Your task to perform on an android device: When is my next appointment? Image 0: 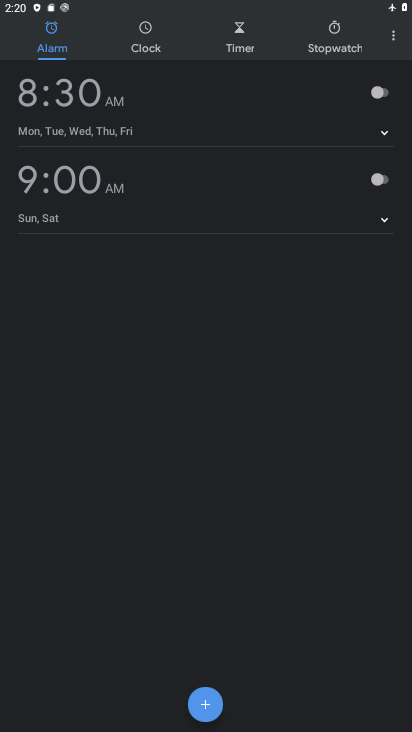
Step 0: press home button
Your task to perform on an android device: When is my next appointment? Image 1: 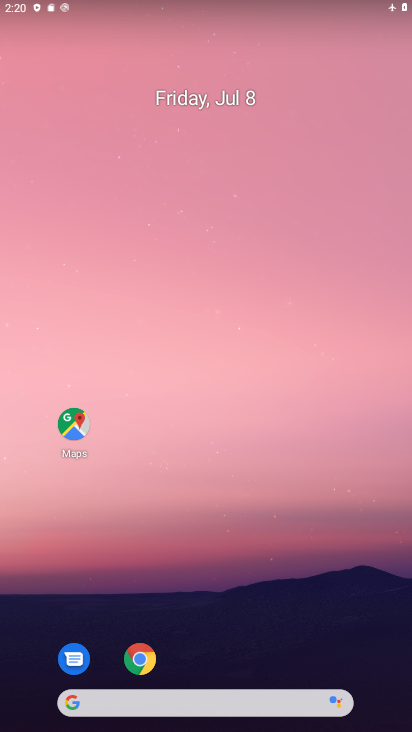
Step 1: drag from (253, 646) to (286, 194)
Your task to perform on an android device: When is my next appointment? Image 2: 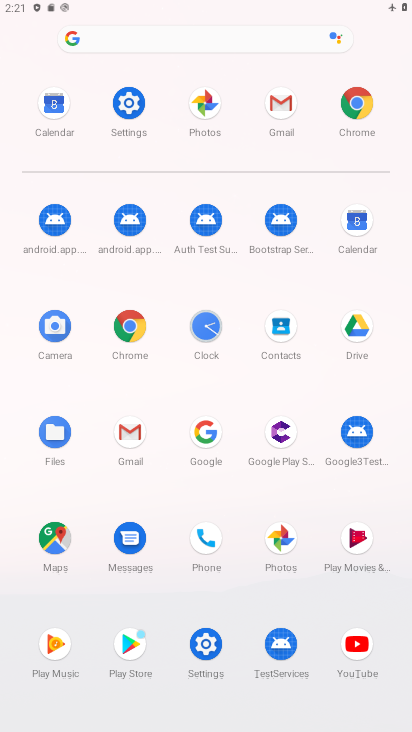
Step 2: click (366, 228)
Your task to perform on an android device: When is my next appointment? Image 3: 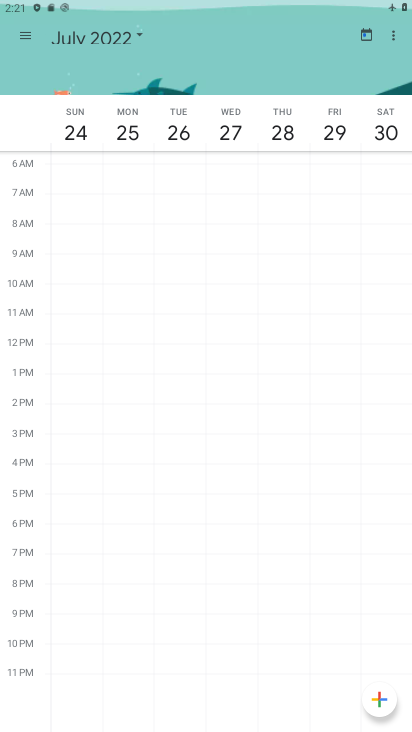
Step 3: click (110, 31)
Your task to perform on an android device: When is my next appointment? Image 4: 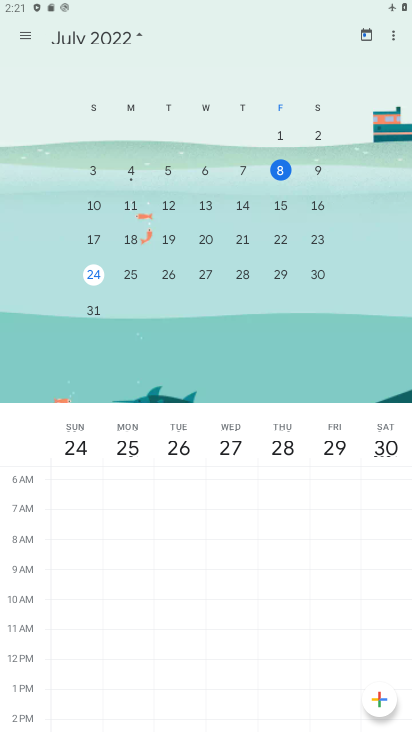
Step 4: click (321, 169)
Your task to perform on an android device: When is my next appointment? Image 5: 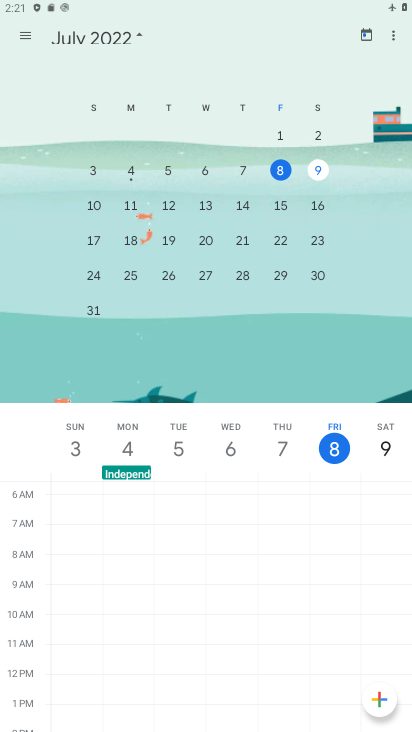
Step 5: click (128, 33)
Your task to perform on an android device: When is my next appointment? Image 6: 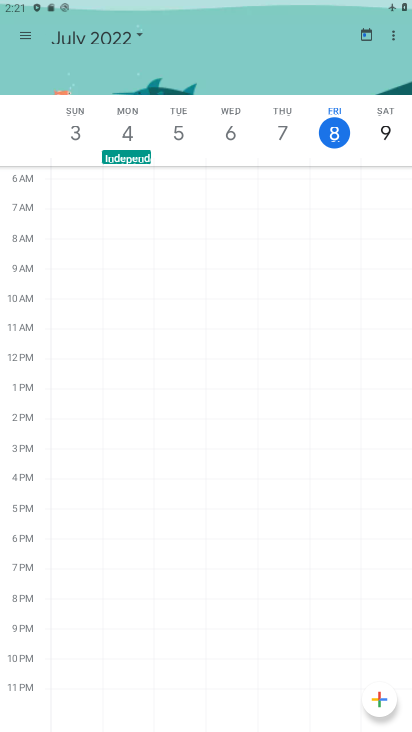
Step 6: drag from (253, 519) to (258, 179)
Your task to perform on an android device: When is my next appointment? Image 7: 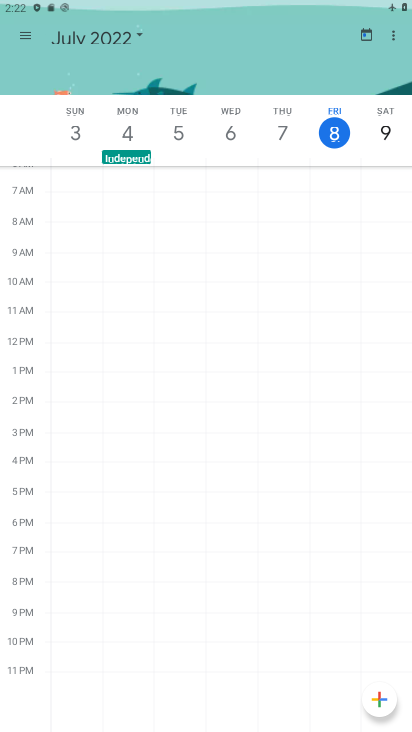
Step 7: click (379, 132)
Your task to perform on an android device: When is my next appointment? Image 8: 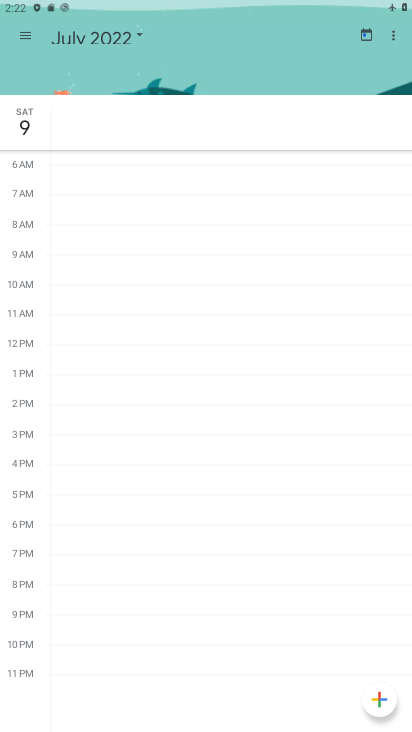
Step 8: task complete